Your task to perform on an android device: change the clock style Image 0: 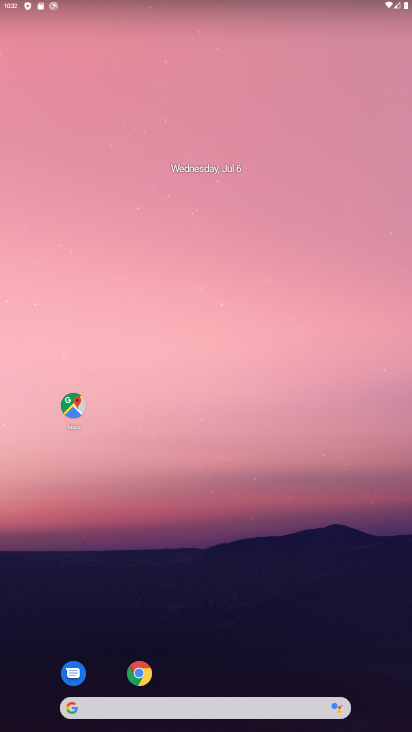
Step 0: drag from (235, 624) to (247, 84)
Your task to perform on an android device: change the clock style Image 1: 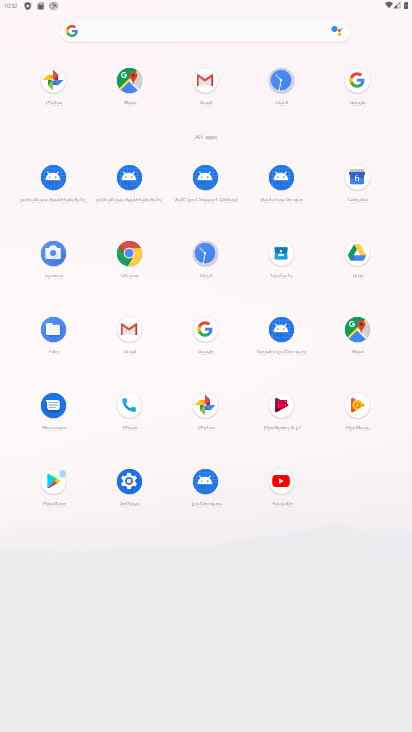
Step 1: click (279, 81)
Your task to perform on an android device: change the clock style Image 2: 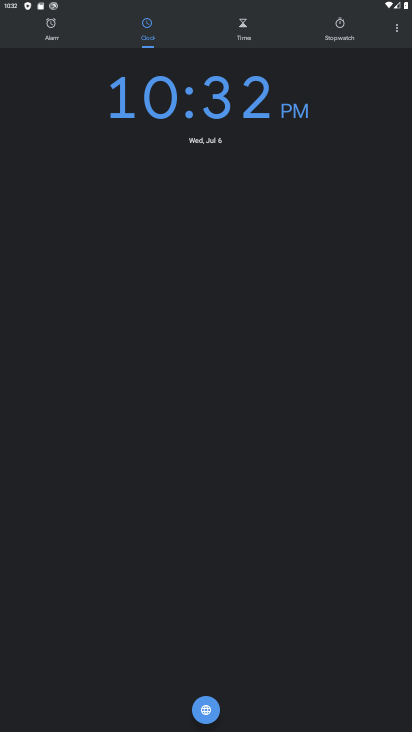
Step 2: click (392, 25)
Your task to perform on an android device: change the clock style Image 3: 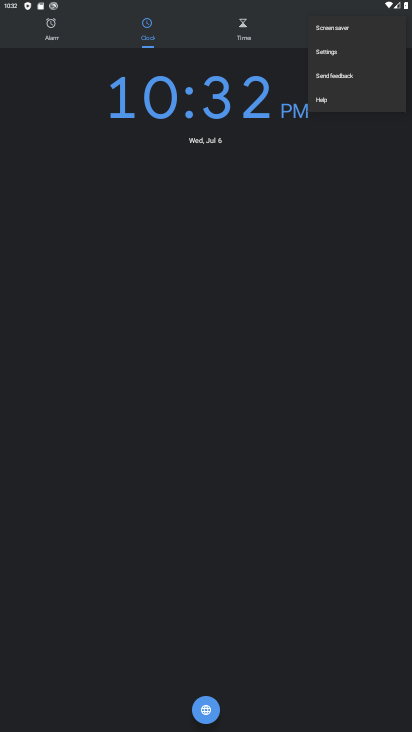
Step 3: click (339, 51)
Your task to perform on an android device: change the clock style Image 4: 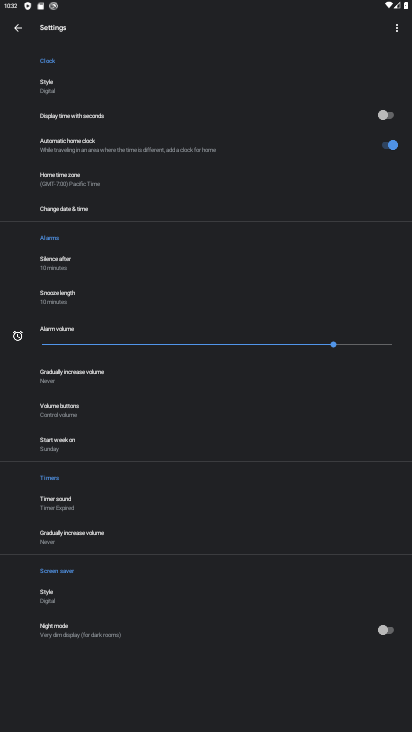
Step 4: click (95, 87)
Your task to perform on an android device: change the clock style Image 5: 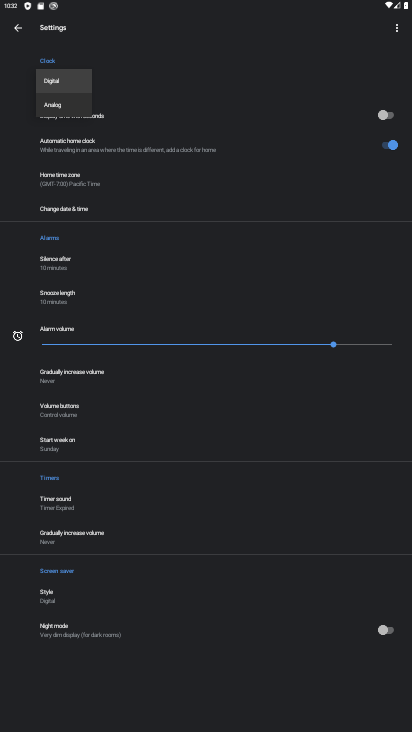
Step 5: click (53, 105)
Your task to perform on an android device: change the clock style Image 6: 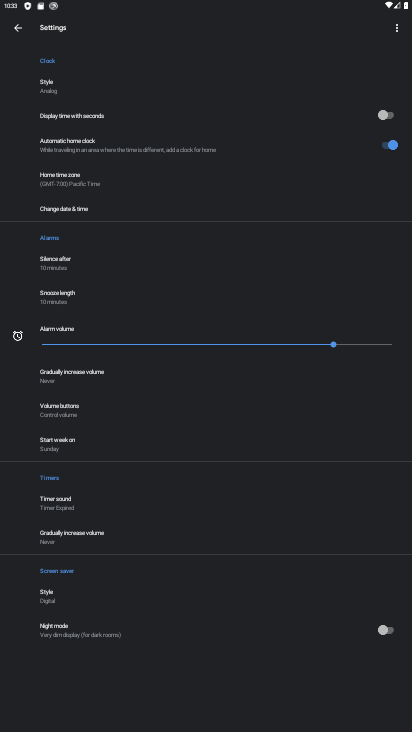
Step 6: task complete